Your task to perform on an android device: Go to location settings Image 0: 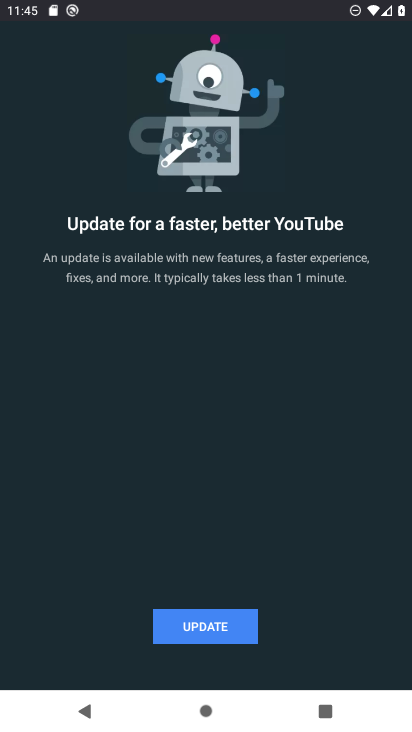
Step 0: press home button
Your task to perform on an android device: Go to location settings Image 1: 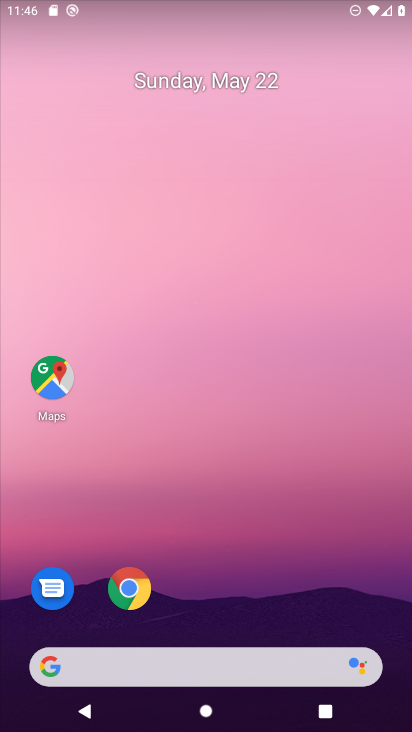
Step 1: drag from (244, 640) to (276, 35)
Your task to perform on an android device: Go to location settings Image 2: 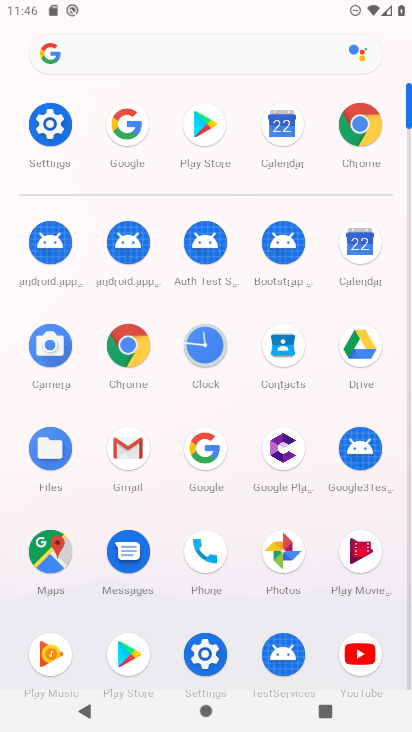
Step 2: click (49, 159)
Your task to perform on an android device: Go to location settings Image 3: 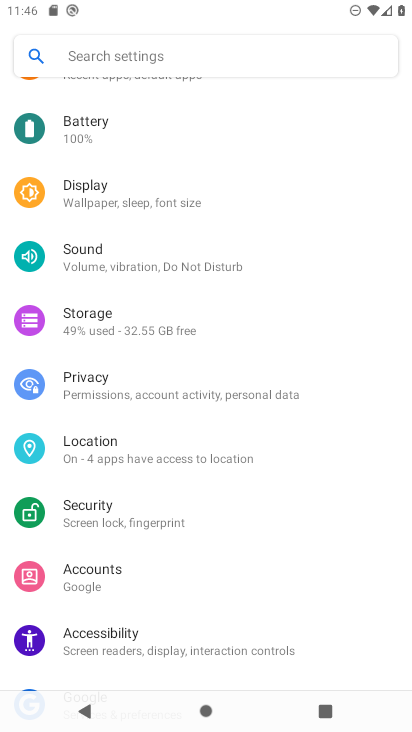
Step 3: click (100, 453)
Your task to perform on an android device: Go to location settings Image 4: 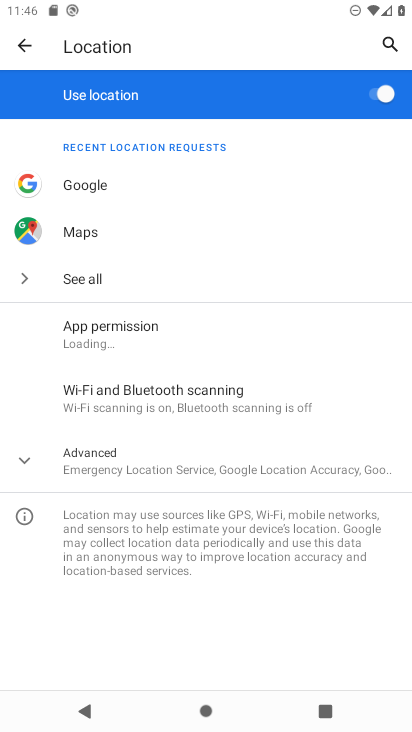
Step 4: click (118, 465)
Your task to perform on an android device: Go to location settings Image 5: 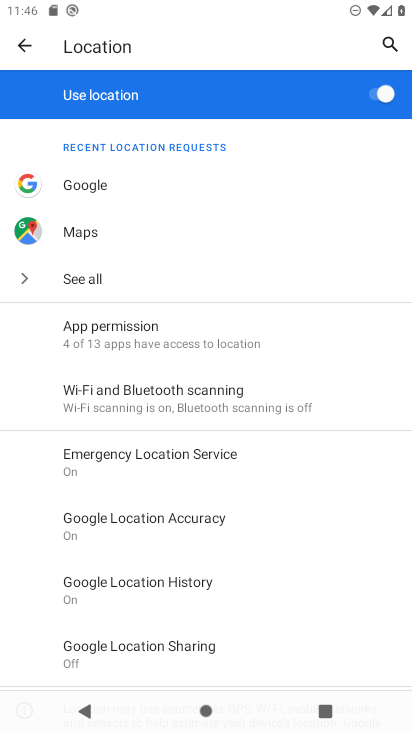
Step 5: task complete